Your task to perform on an android device: change alarm snooze length Image 0: 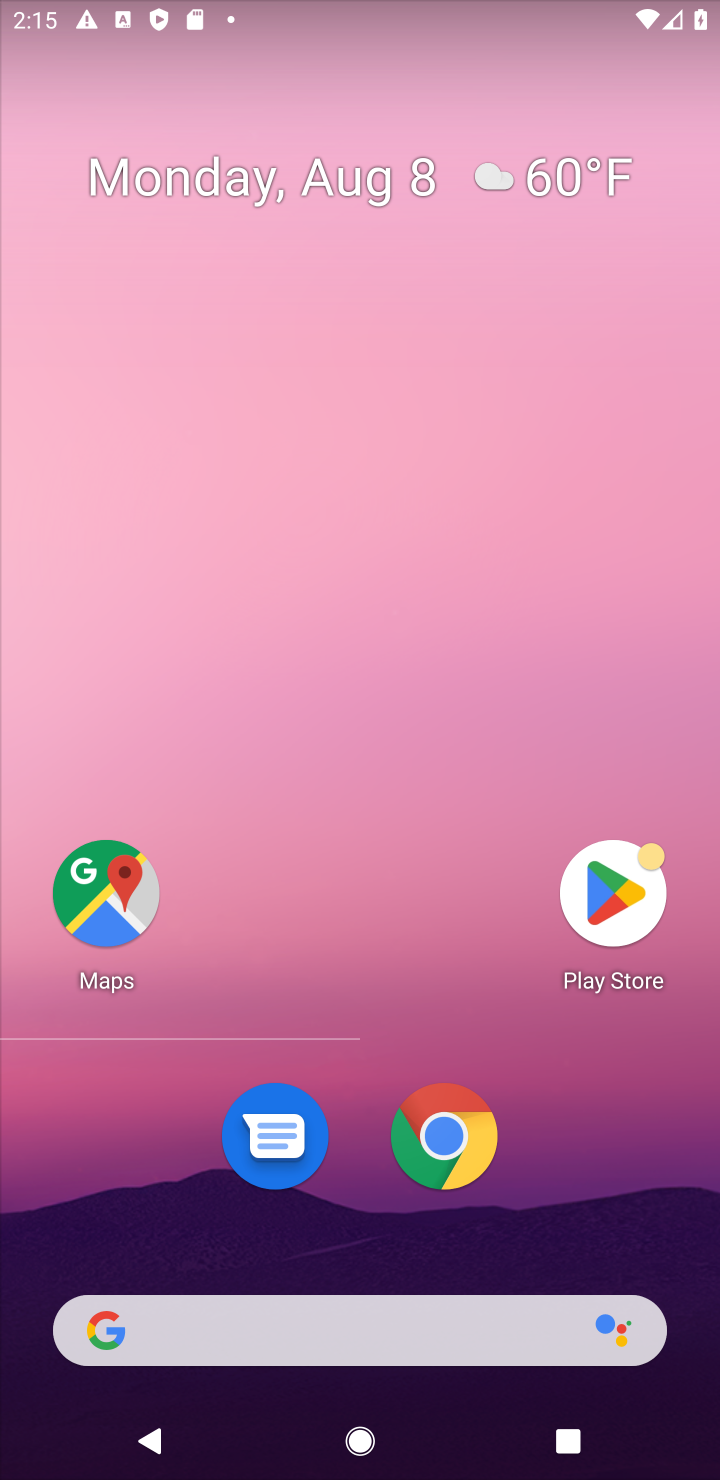
Step 0: drag from (25, 1403) to (422, 526)
Your task to perform on an android device: change alarm snooze length Image 1: 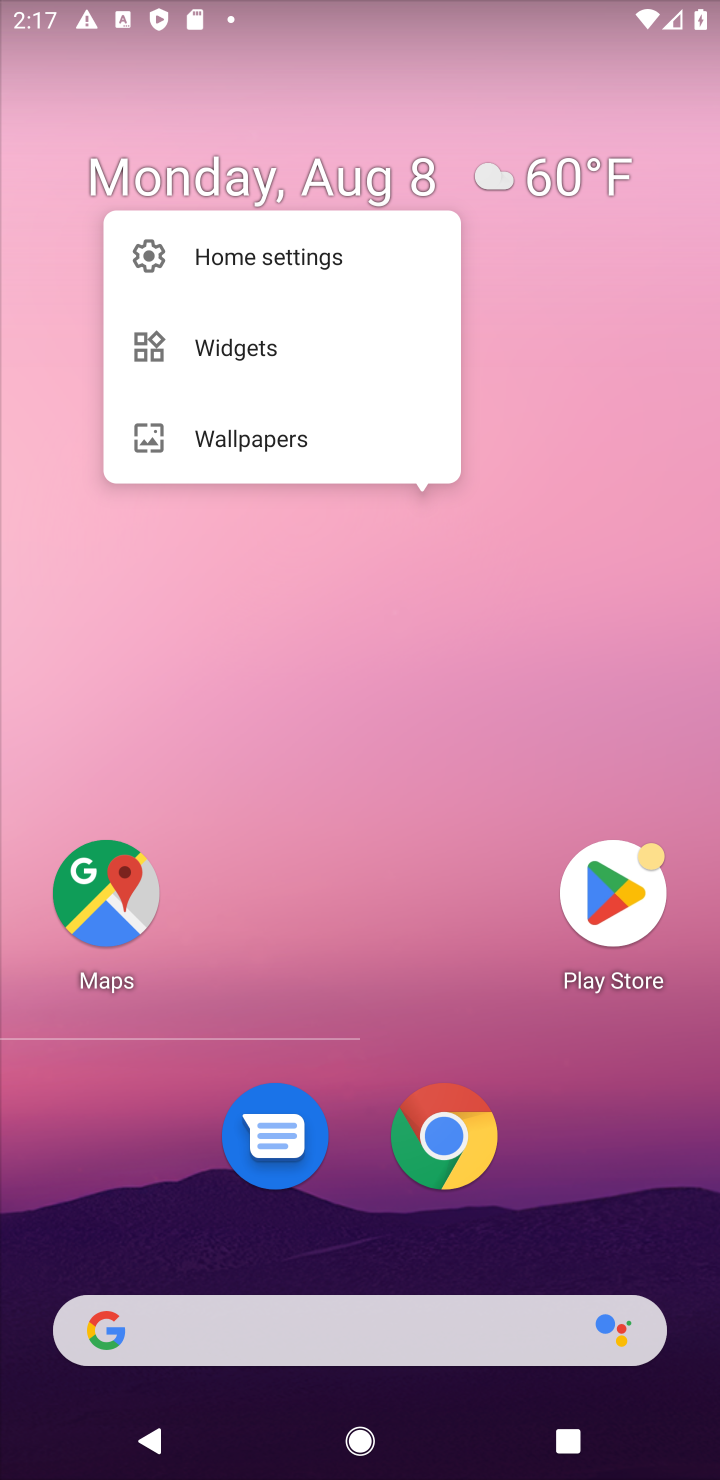
Step 1: task complete